Your task to perform on an android device: open a bookmark in the chrome app Image 0: 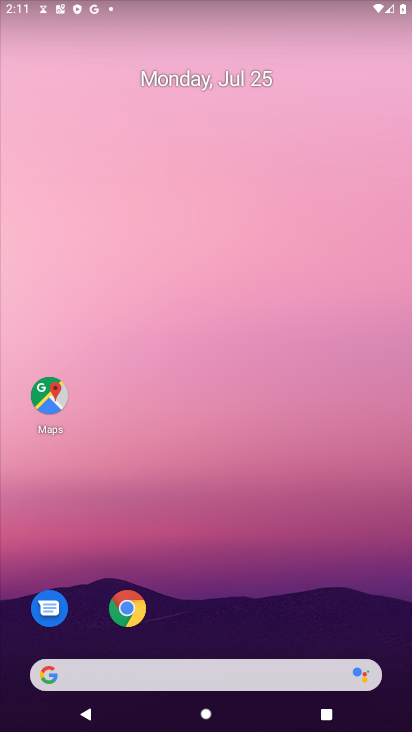
Step 0: click (128, 607)
Your task to perform on an android device: open a bookmark in the chrome app Image 1: 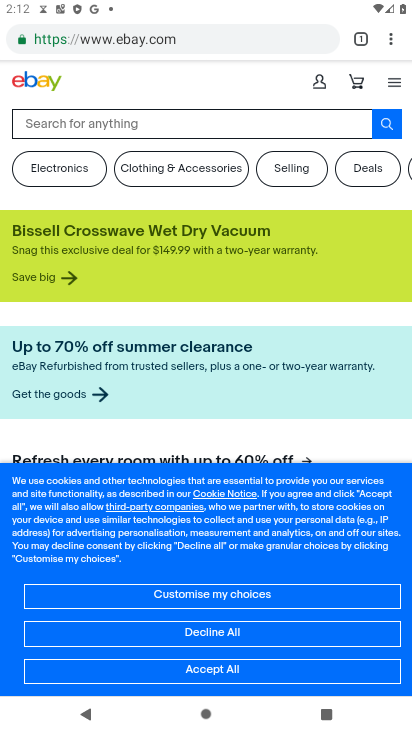
Step 1: click (390, 38)
Your task to perform on an android device: open a bookmark in the chrome app Image 2: 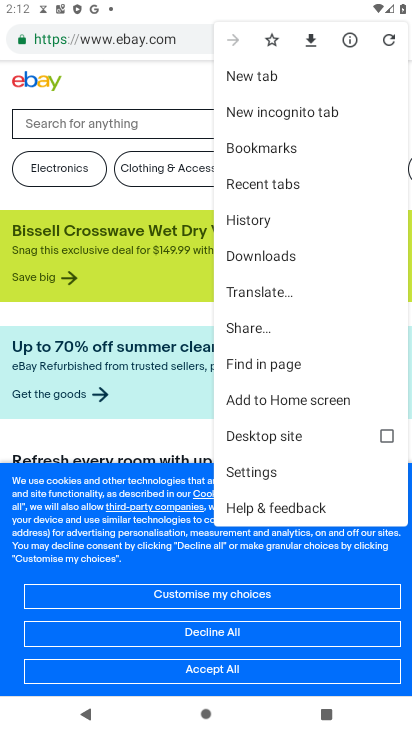
Step 2: click (288, 149)
Your task to perform on an android device: open a bookmark in the chrome app Image 3: 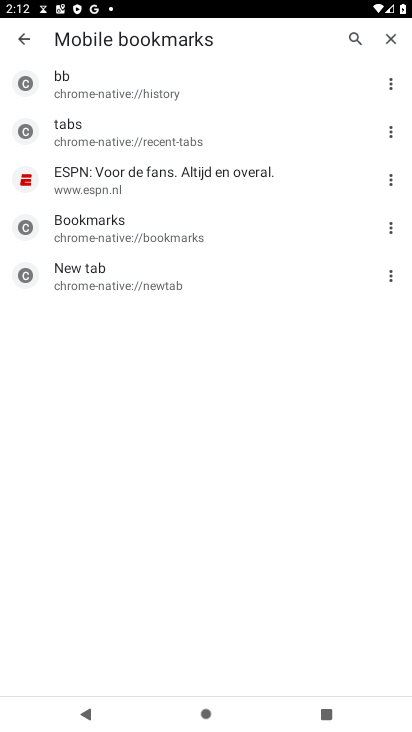
Step 3: task complete